Your task to perform on an android device: toggle airplane mode Image 0: 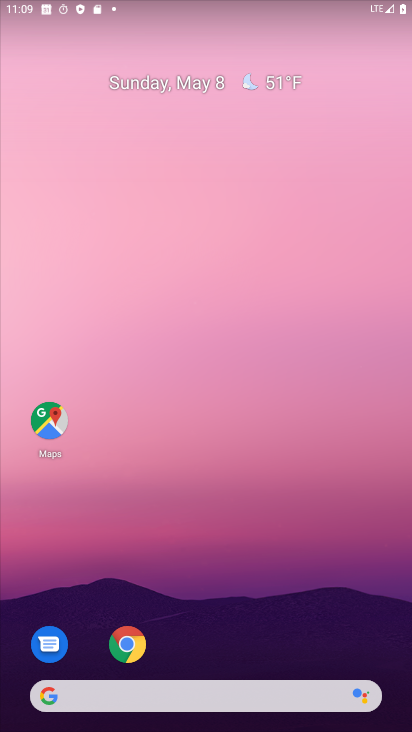
Step 0: drag from (200, 651) to (341, 50)
Your task to perform on an android device: toggle airplane mode Image 1: 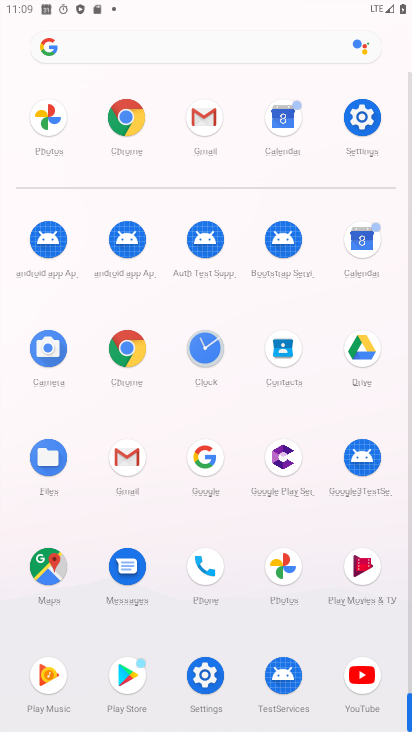
Step 1: click (367, 104)
Your task to perform on an android device: toggle airplane mode Image 2: 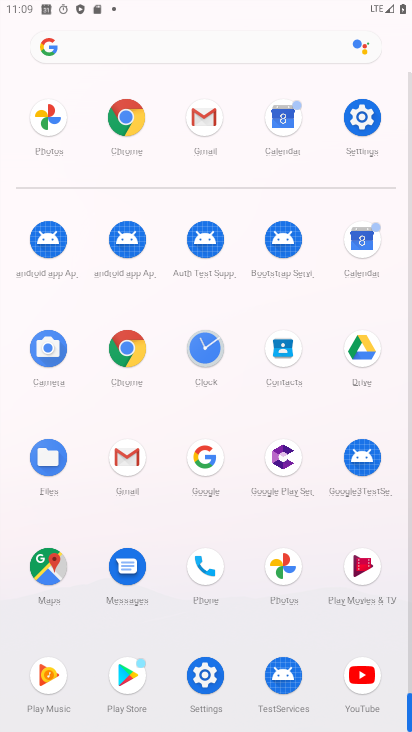
Step 2: click (367, 104)
Your task to perform on an android device: toggle airplane mode Image 3: 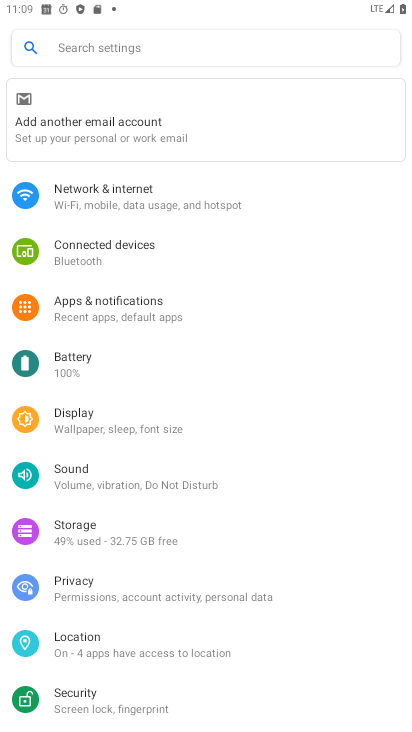
Step 3: click (161, 202)
Your task to perform on an android device: toggle airplane mode Image 4: 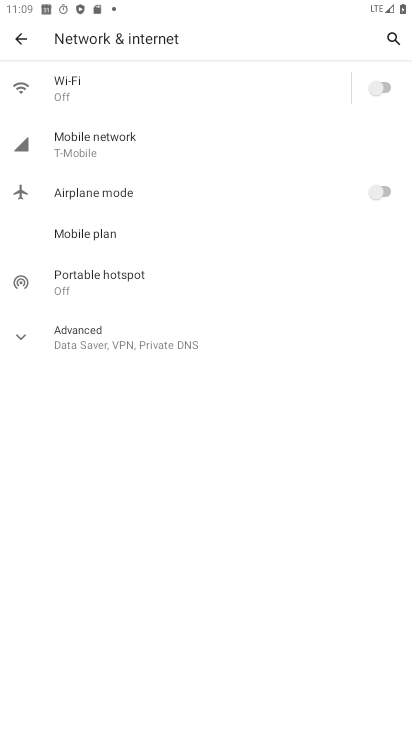
Step 4: click (320, 182)
Your task to perform on an android device: toggle airplane mode Image 5: 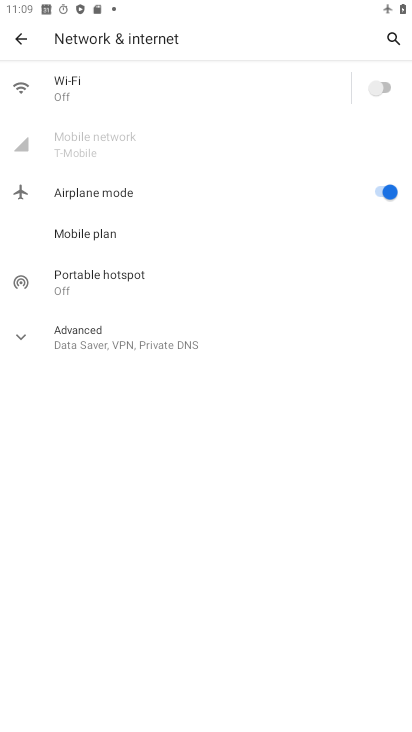
Step 5: task complete